Your task to perform on an android device: Do I have any events tomorrow? Image 0: 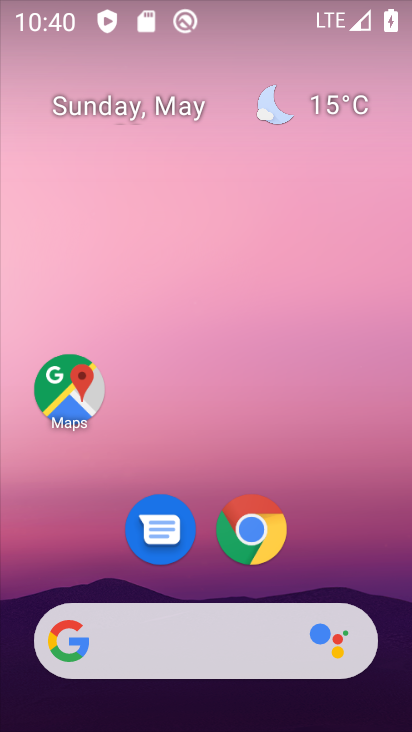
Step 0: task complete